Your task to perform on an android device: change keyboard looks Image 0: 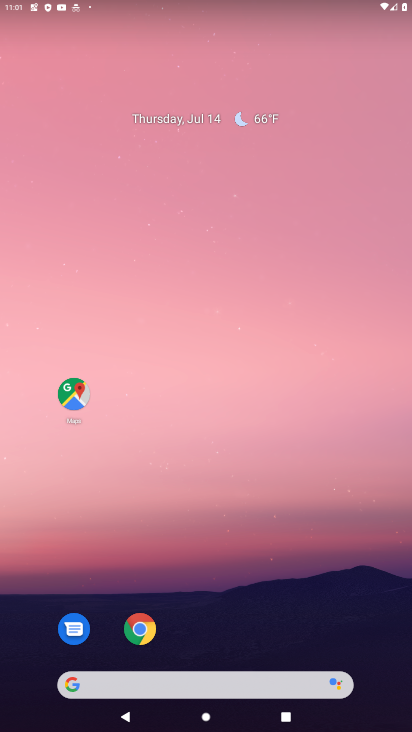
Step 0: press home button
Your task to perform on an android device: change keyboard looks Image 1: 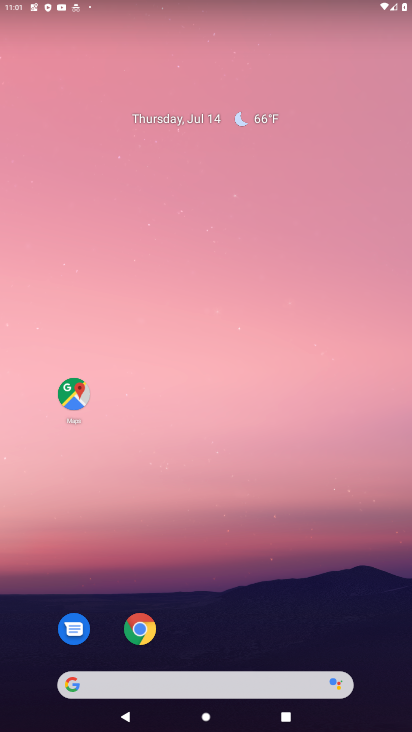
Step 1: drag from (244, 607) to (333, 2)
Your task to perform on an android device: change keyboard looks Image 2: 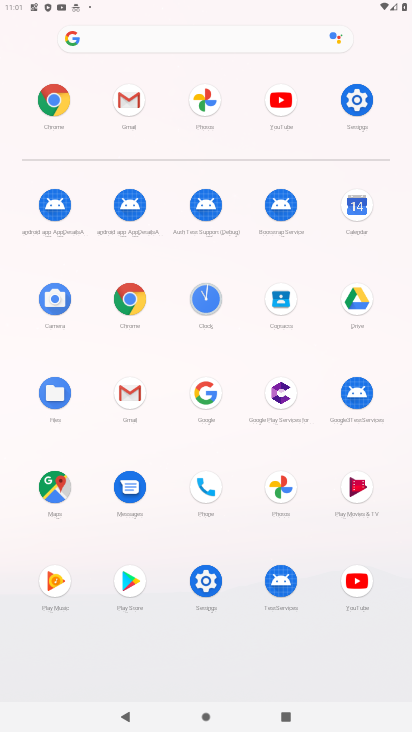
Step 2: click (355, 109)
Your task to perform on an android device: change keyboard looks Image 3: 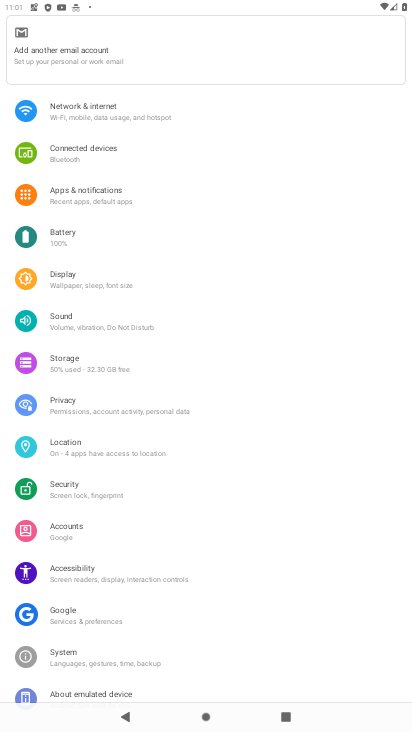
Step 3: click (99, 660)
Your task to perform on an android device: change keyboard looks Image 4: 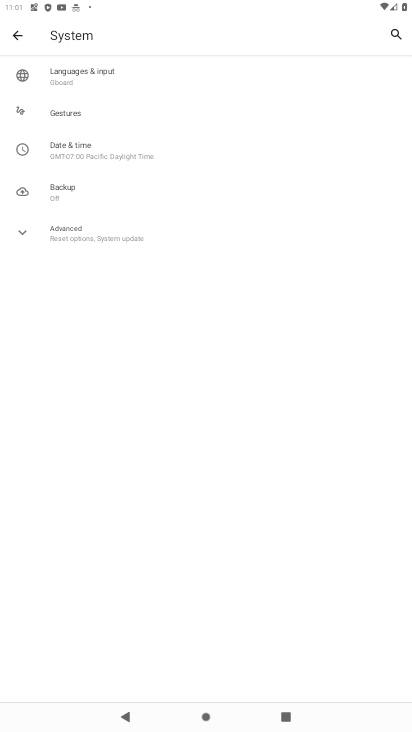
Step 4: click (87, 76)
Your task to perform on an android device: change keyboard looks Image 5: 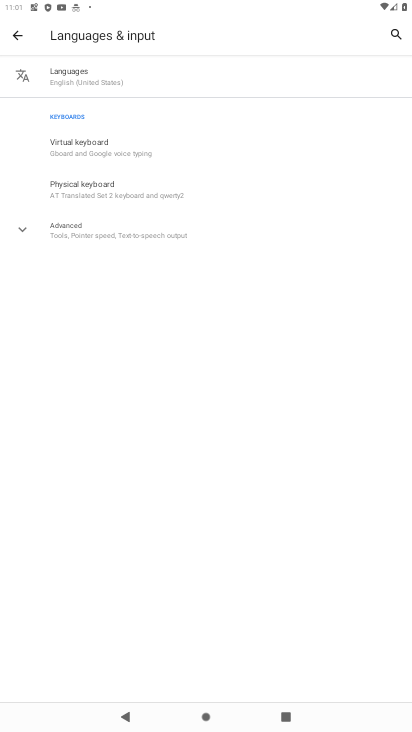
Step 5: click (72, 140)
Your task to perform on an android device: change keyboard looks Image 6: 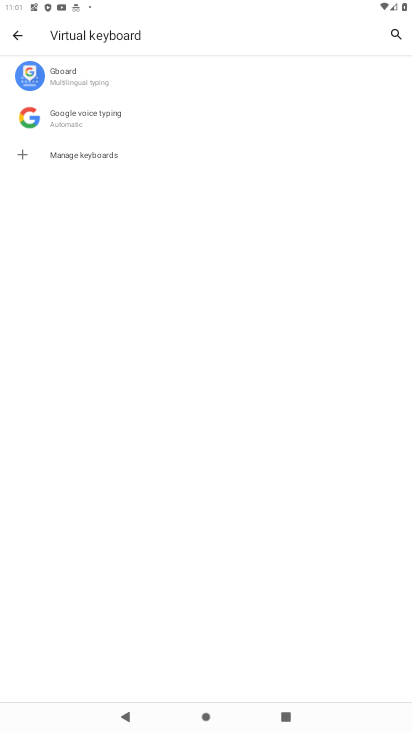
Step 6: click (70, 85)
Your task to perform on an android device: change keyboard looks Image 7: 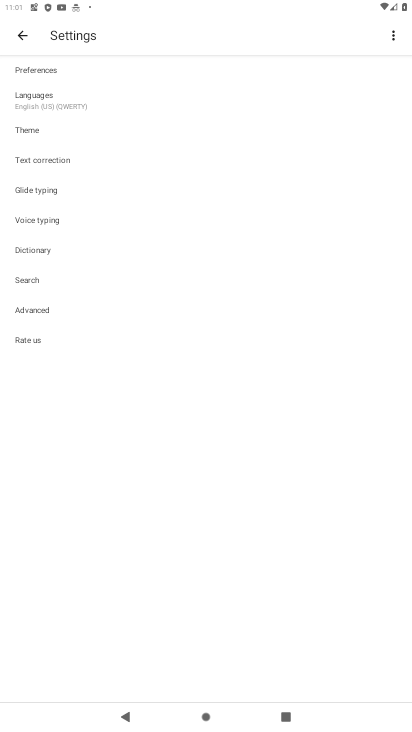
Step 7: click (28, 133)
Your task to perform on an android device: change keyboard looks Image 8: 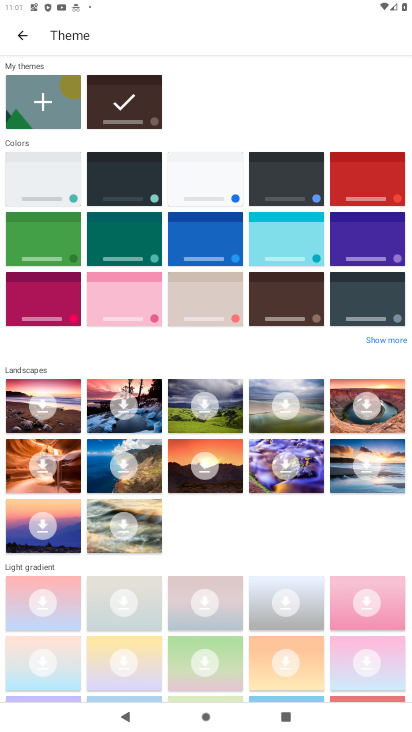
Step 8: click (288, 223)
Your task to perform on an android device: change keyboard looks Image 9: 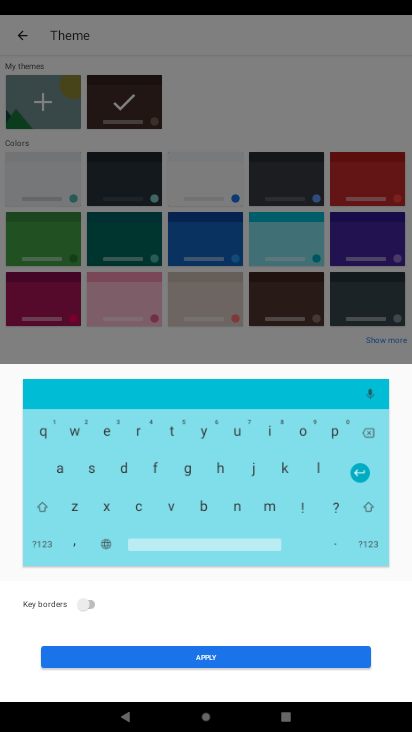
Step 9: click (247, 648)
Your task to perform on an android device: change keyboard looks Image 10: 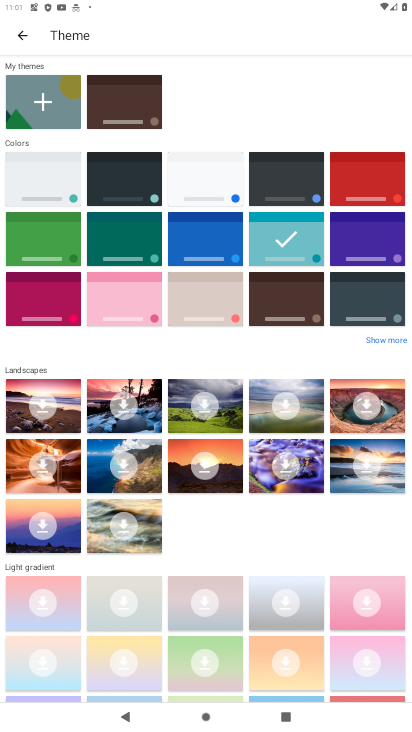
Step 10: task complete